Your task to perform on an android device: Open Youtube and go to the subscriptions tab Image 0: 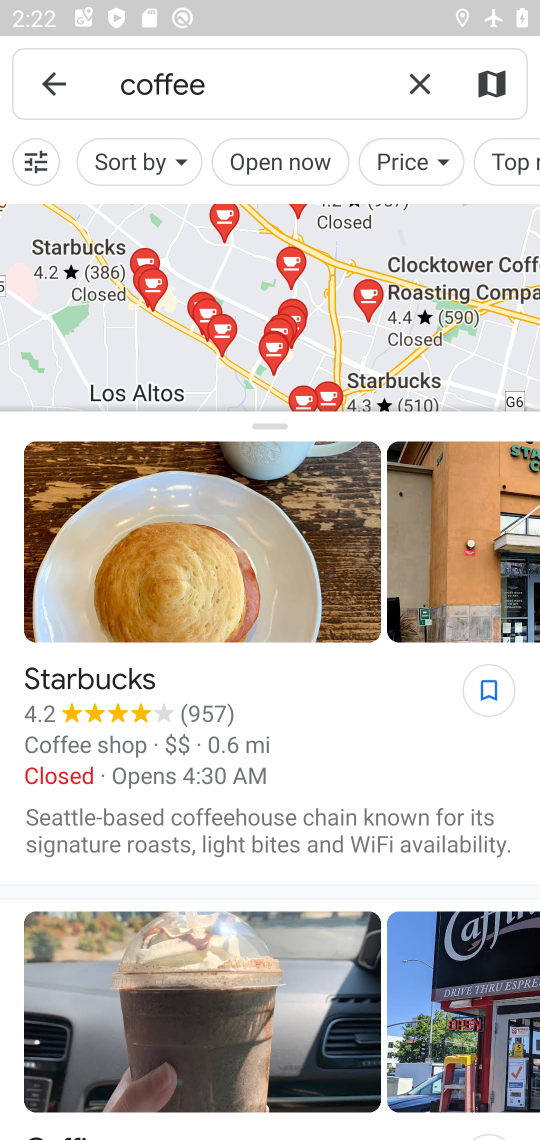
Step 0: press home button
Your task to perform on an android device: Open Youtube and go to the subscriptions tab Image 1: 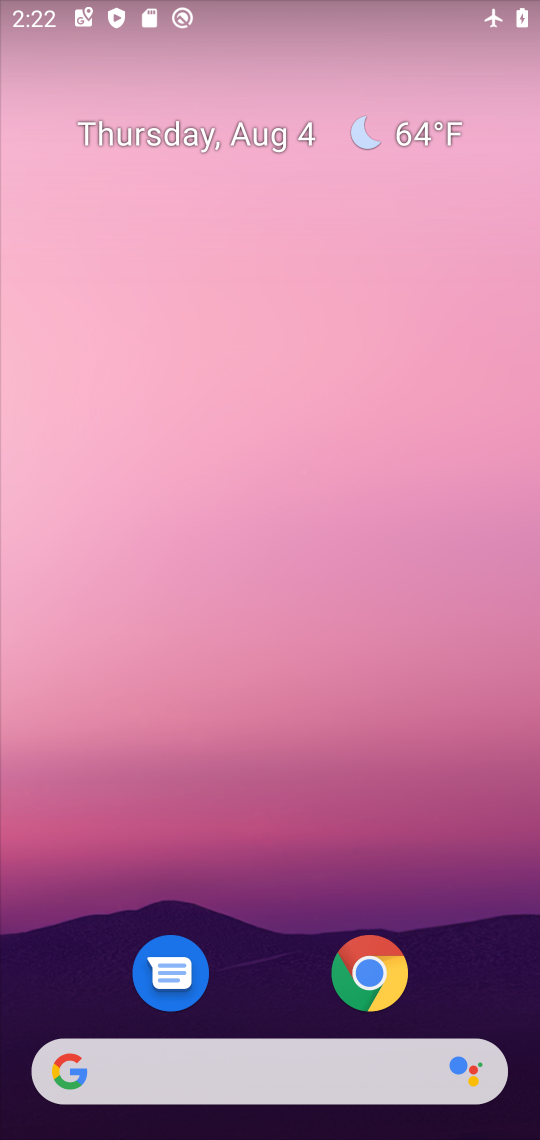
Step 1: drag from (234, 741) to (135, 35)
Your task to perform on an android device: Open Youtube and go to the subscriptions tab Image 2: 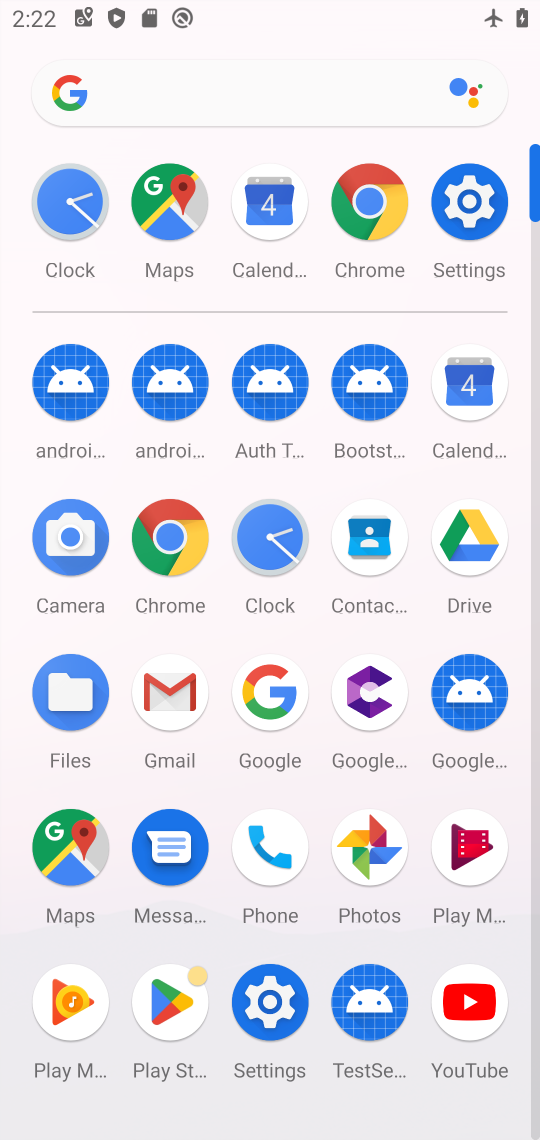
Step 2: click (496, 992)
Your task to perform on an android device: Open Youtube and go to the subscriptions tab Image 3: 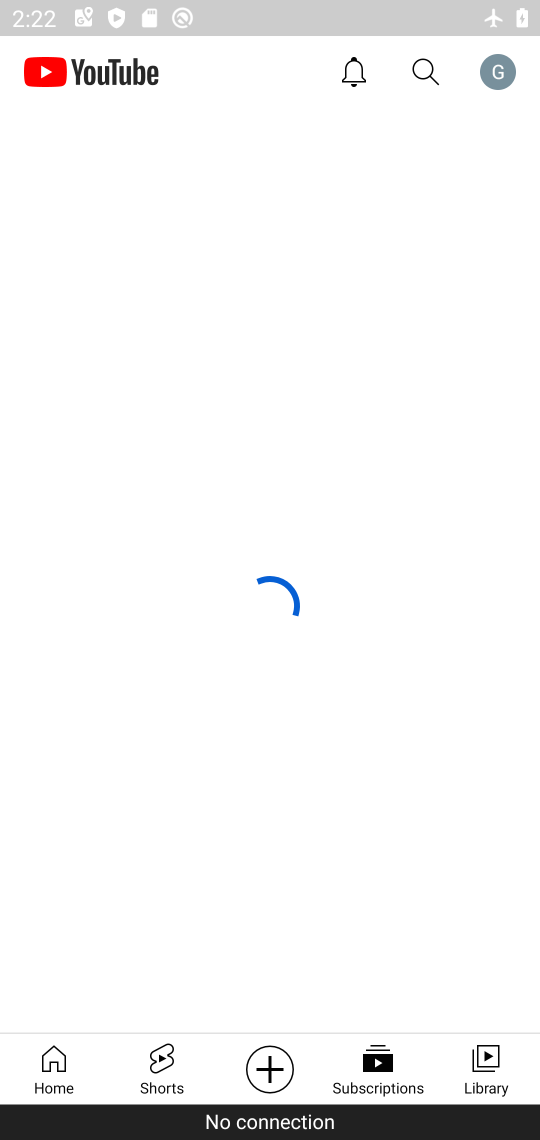
Step 3: task complete